Your task to perform on an android device: read, delete, or share a saved page in the chrome app Image 0: 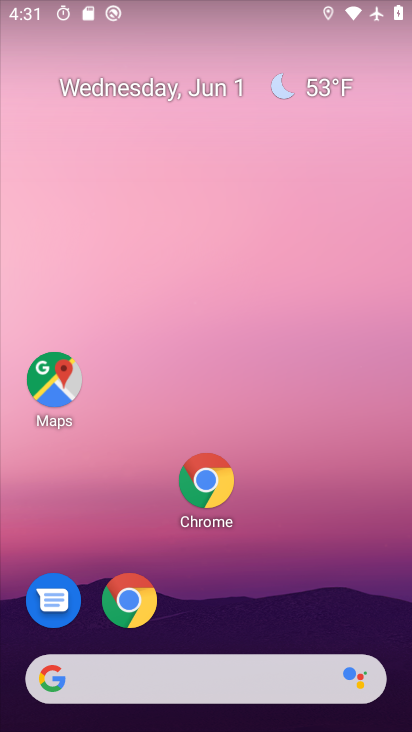
Step 0: drag from (179, 688) to (39, 200)
Your task to perform on an android device: read, delete, or share a saved page in the chrome app Image 1: 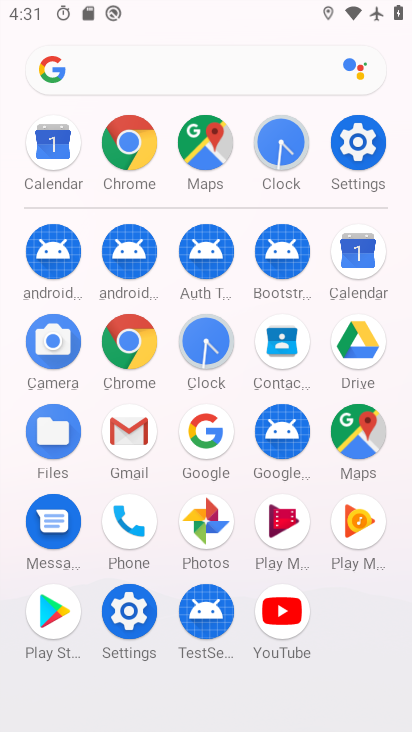
Step 1: click (138, 141)
Your task to perform on an android device: read, delete, or share a saved page in the chrome app Image 2: 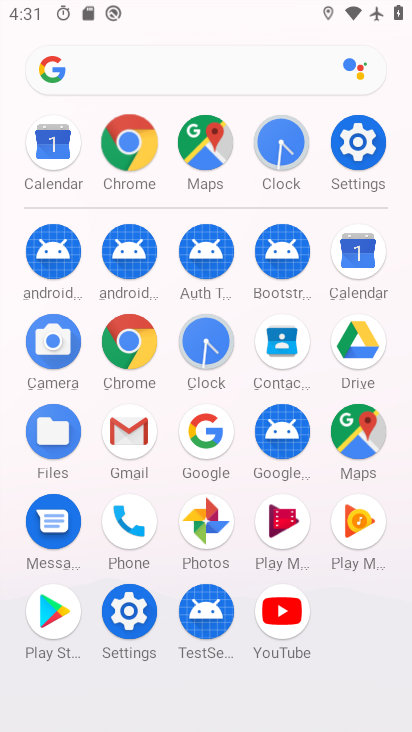
Step 2: click (137, 155)
Your task to perform on an android device: read, delete, or share a saved page in the chrome app Image 3: 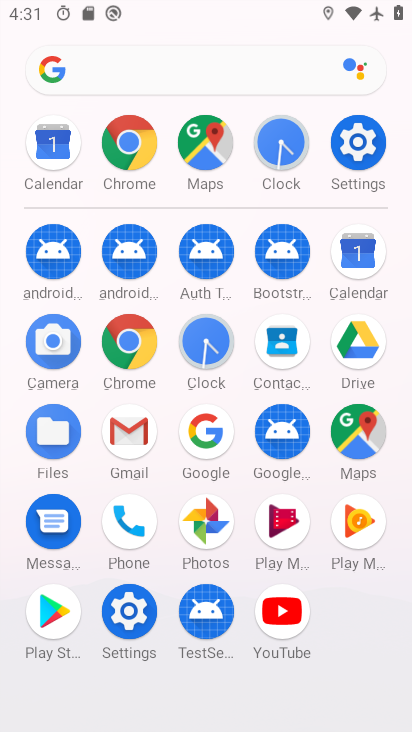
Step 3: click (142, 153)
Your task to perform on an android device: read, delete, or share a saved page in the chrome app Image 4: 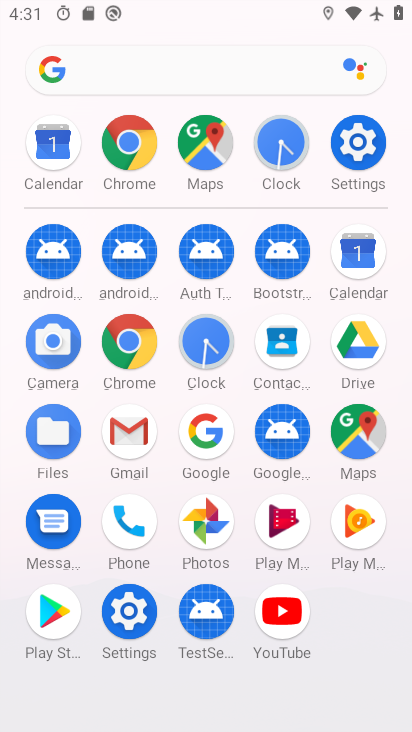
Step 4: click (148, 151)
Your task to perform on an android device: read, delete, or share a saved page in the chrome app Image 5: 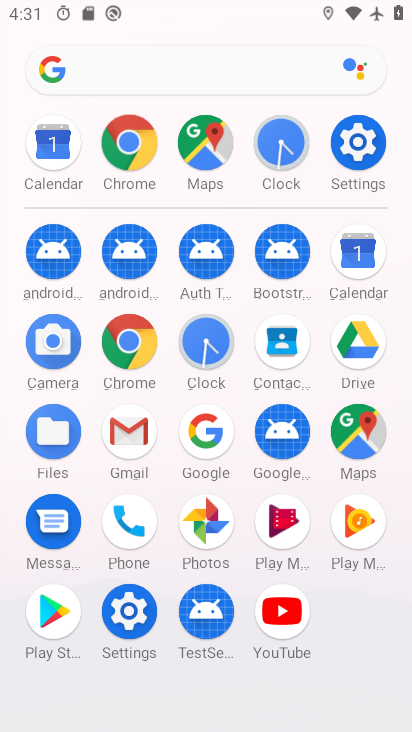
Step 5: click (144, 145)
Your task to perform on an android device: read, delete, or share a saved page in the chrome app Image 6: 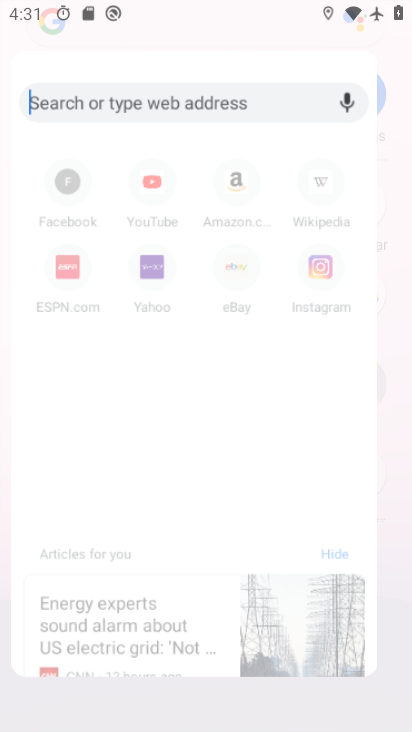
Step 6: click (144, 145)
Your task to perform on an android device: read, delete, or share a saved page in the chrome app Image 7: 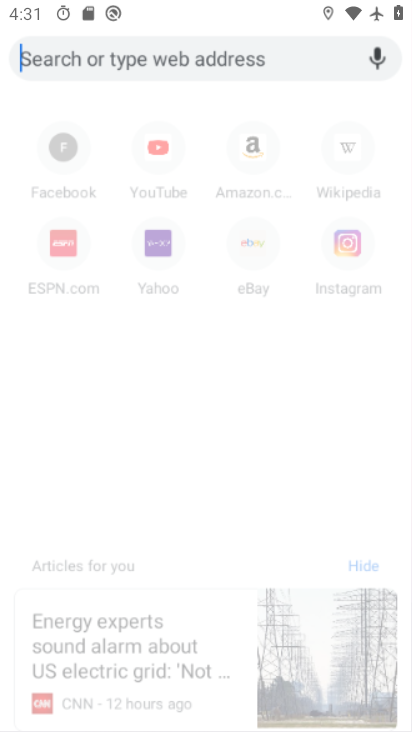
Step 7: click (136, 145)
Your task to perform on an android device: read, delete, or share a saved page in the chrome app Image 8: 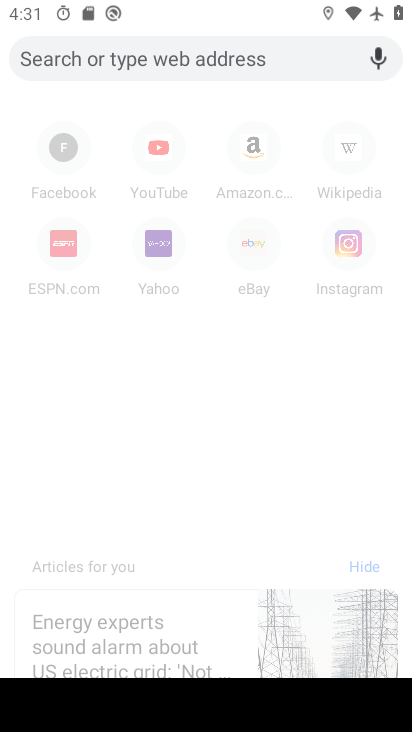
Step 8: press back button
Your task to perform on an android device: read, delete, or share a saved page in the chrome app Image 9: 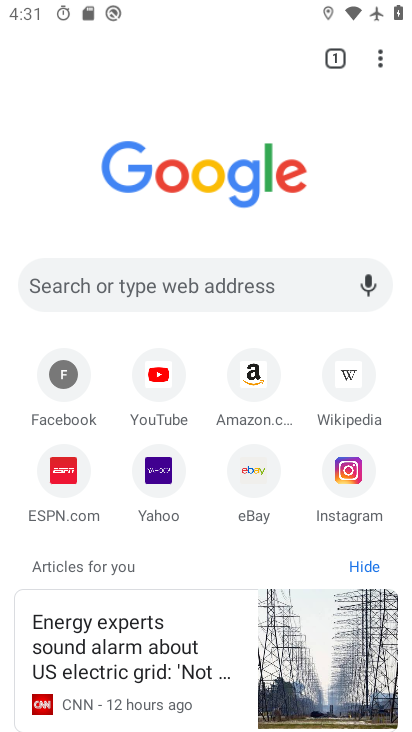
Step 9: click (254, 378)
Your task to perform on an android device: read, delete, or share a saved page in the chrome app Image 10: 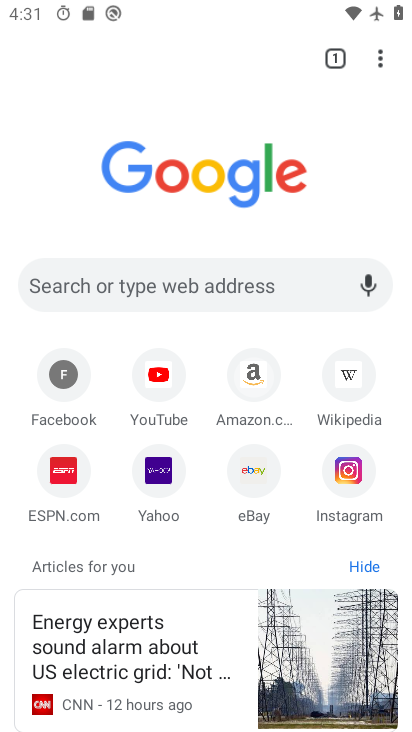
Step 10: click (253, 377)
Your task to perform on an android device: read, delete, or share a saved page in the chrome app Image 11: 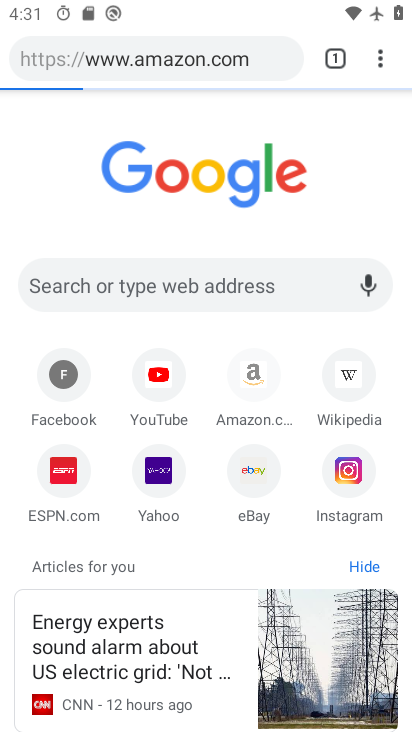
Step 11: click (253, 377)
Your task to perform on an android device: read, delete, or share a saved page in the chrome app Image 12: 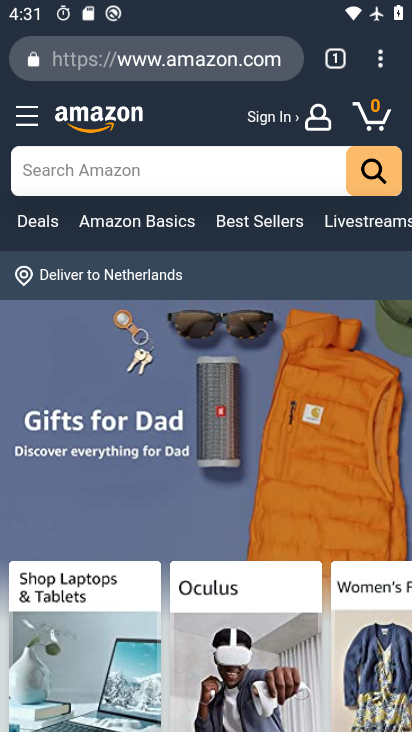
Step 12: drag from (377, 65) to (163, 378)
Your task to perform on an android device: read, delete, or share a saved page in the chrome app Image 13: 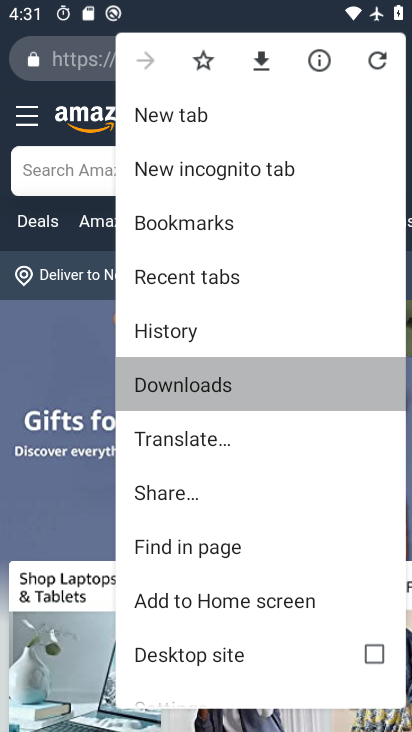
Step 13: click (163, 377)
Your task to perform on an android device: read, delete, or share a saved page in the chrome app Image 14: 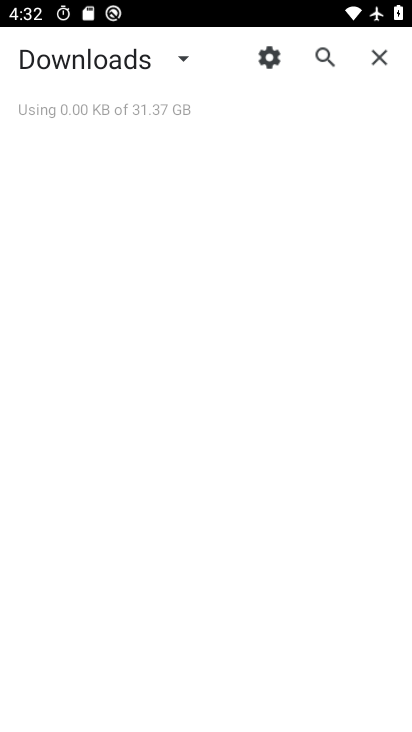
Step 14: click (183, 56)
Your task to perform on an android device: read, delete, or share a saved page in the chrome app Image 15: 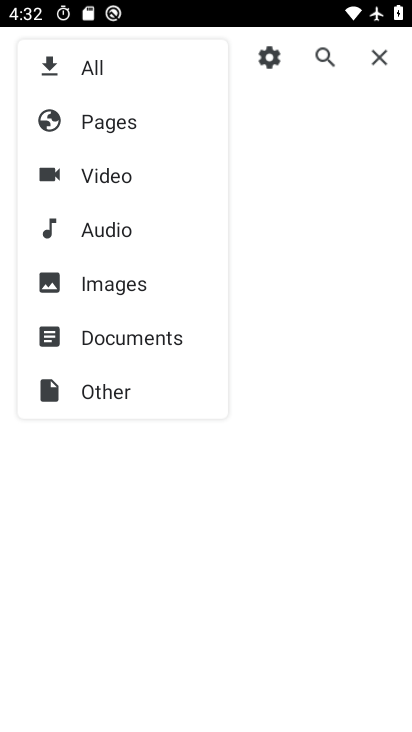
Step 15: click (98, 125)
Your task to perform on an android device: read, delete, or share a saved page in the chrome app Image 16: 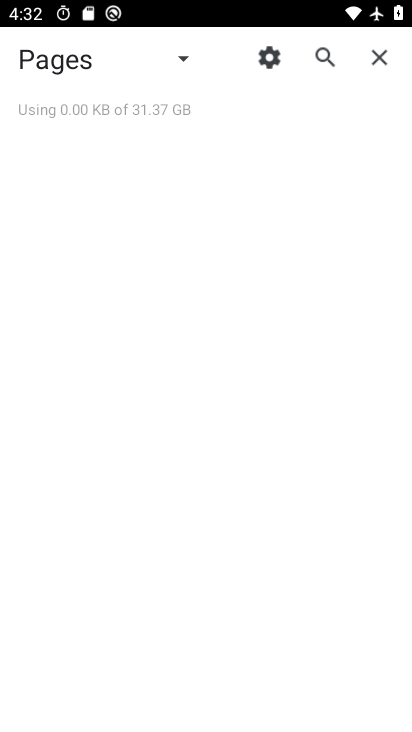
Step 16: task complete